Your task to perform on an android device: What's on my calendar today? Image 0: 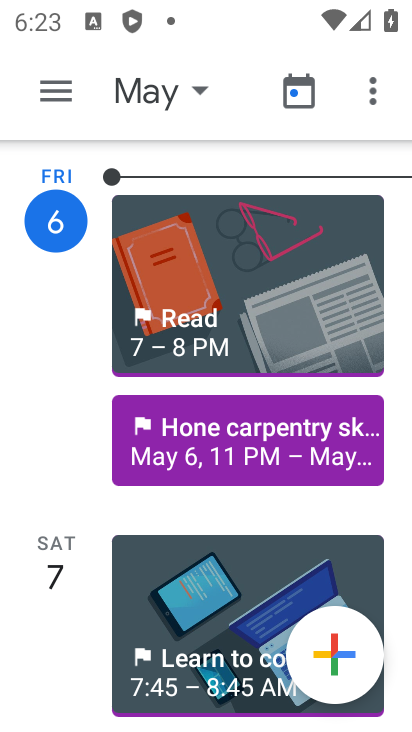
Step 0: press home button
Your task to perform on an android device: What's on my calendar today? Image 1: 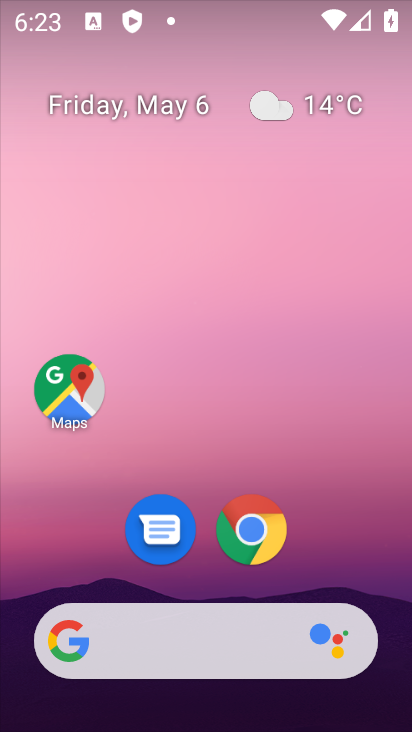
Step 1: drag from (340, 514) to (254, 27)
Your task to perform on an android device: What's on my calendar today? Image 2: 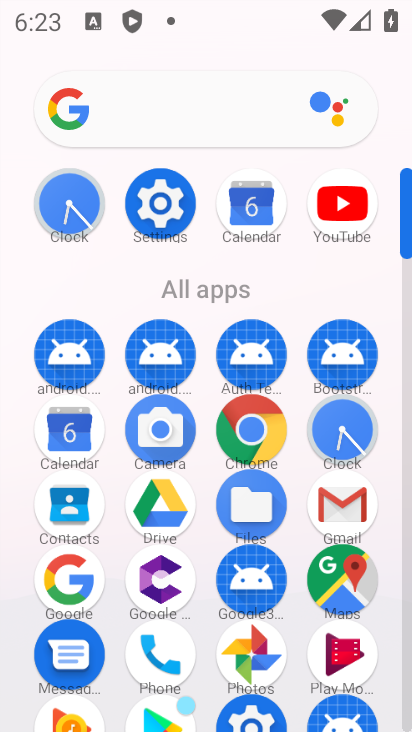
Step 2: click (68, 435)
Your task to perform on an android device: What's on my calendar today? Image 3: 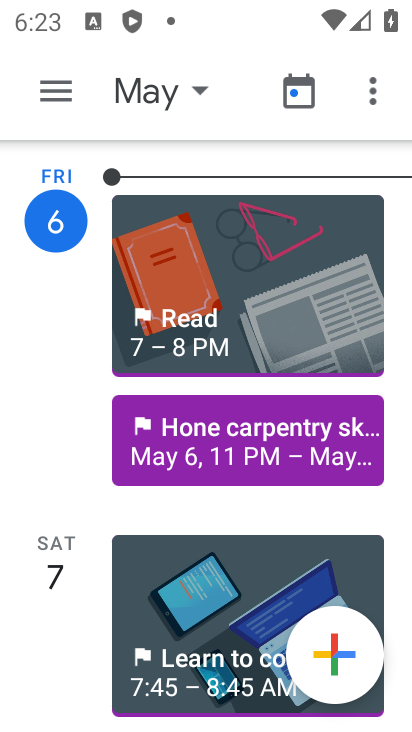
Step 3: task complete